Your task to perform on an android device: check storage Image 0: 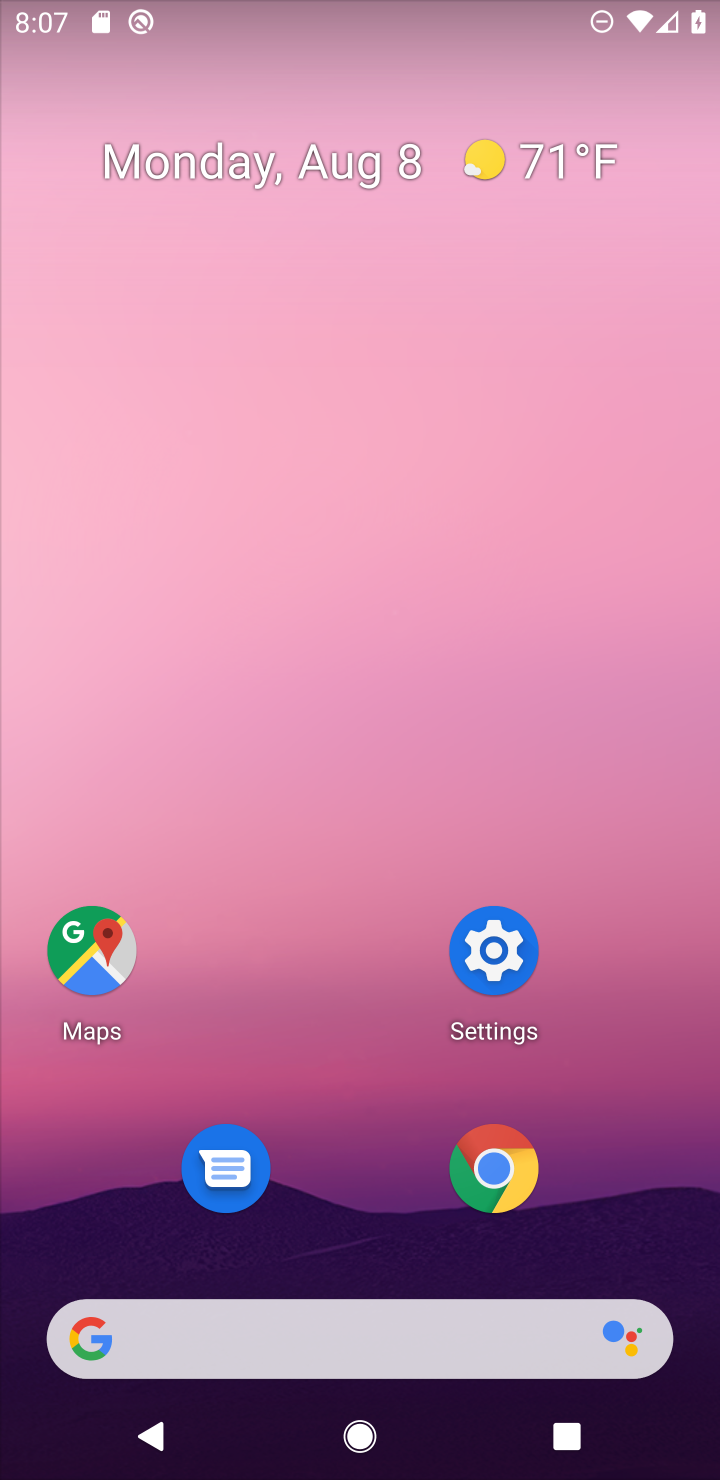
Step 0: drag from (328, 1340) to (595, 192)
Your task to perform on an android device: check storage Image 1: 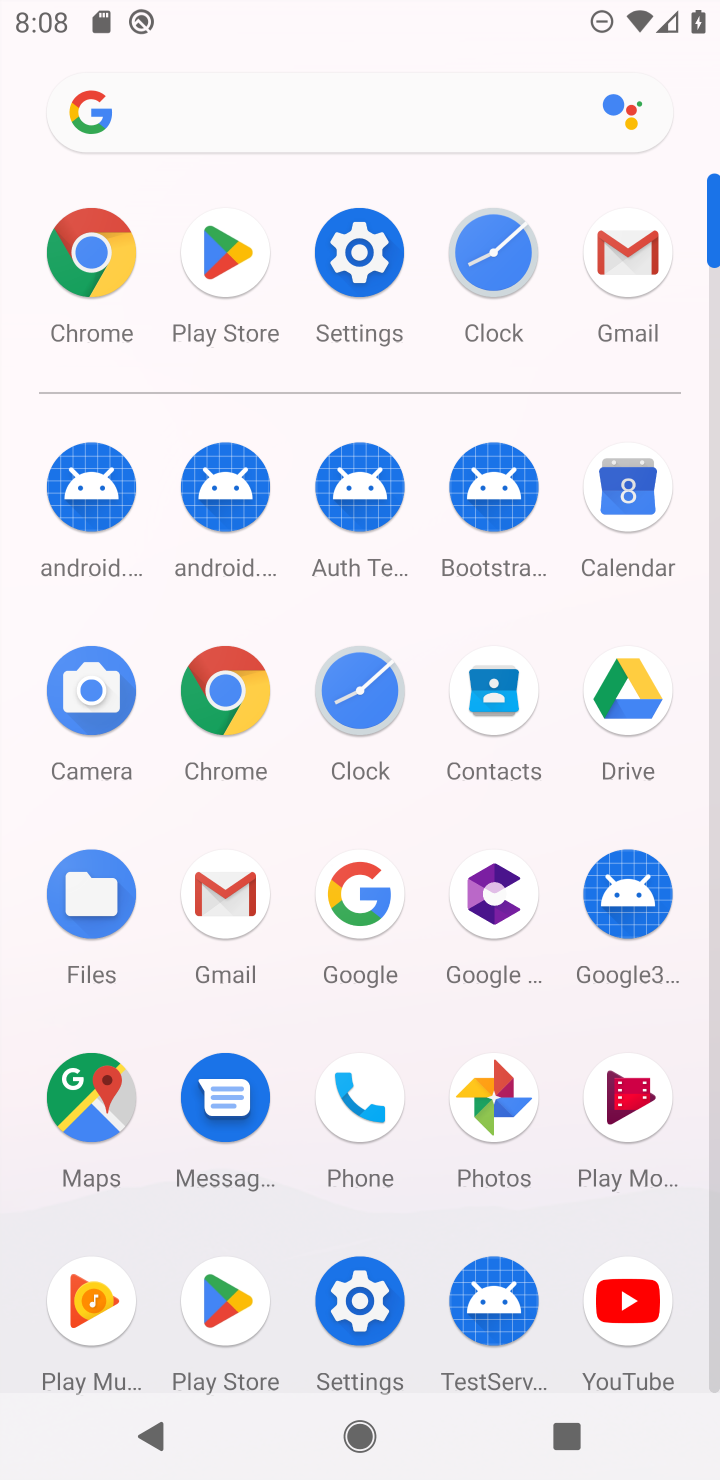
Step 1: click (358, 248)
Your task to perform on an android device: check storage Image 2: 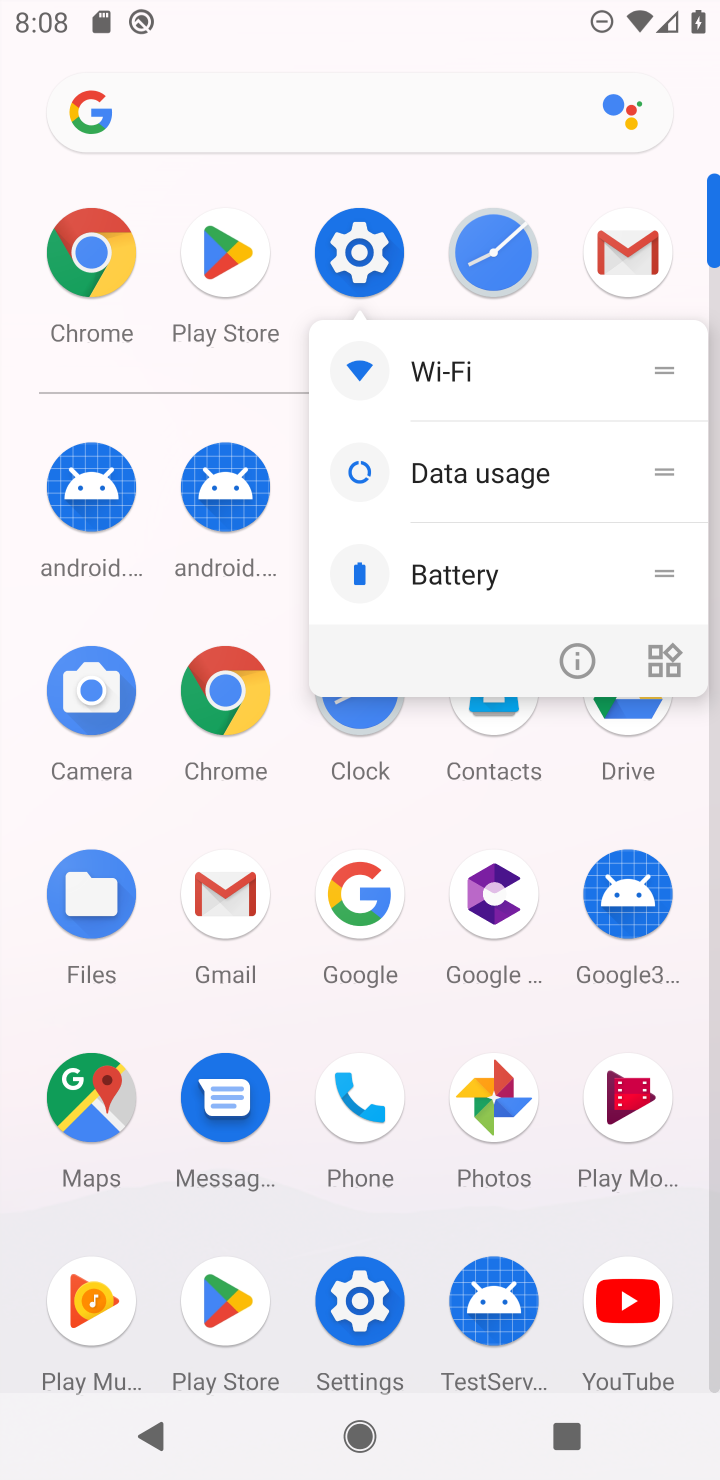
Step 2: click (352, 242)
Your task to perform on an android device: check storage Image 3: 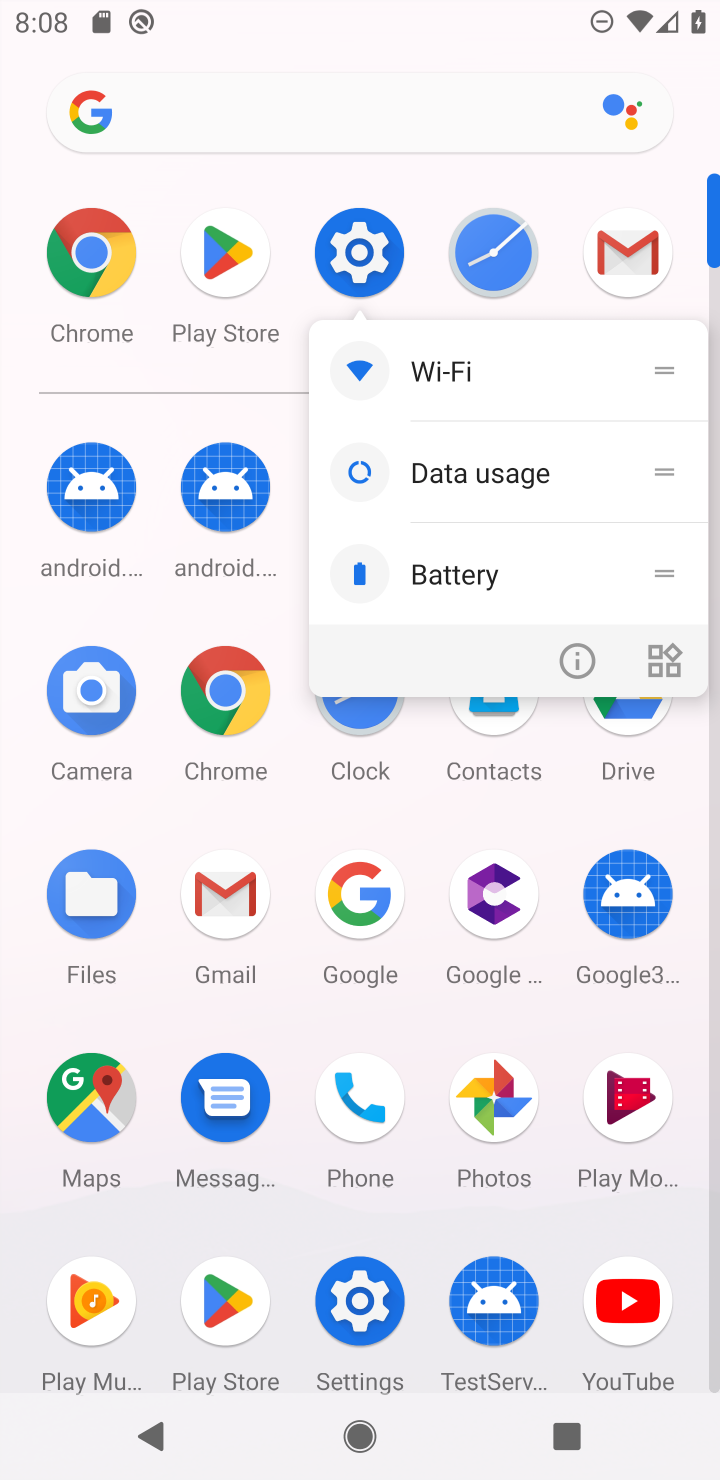
Step 3: click (352, 239)
Your task to perform on an android device: check storage Image 4: 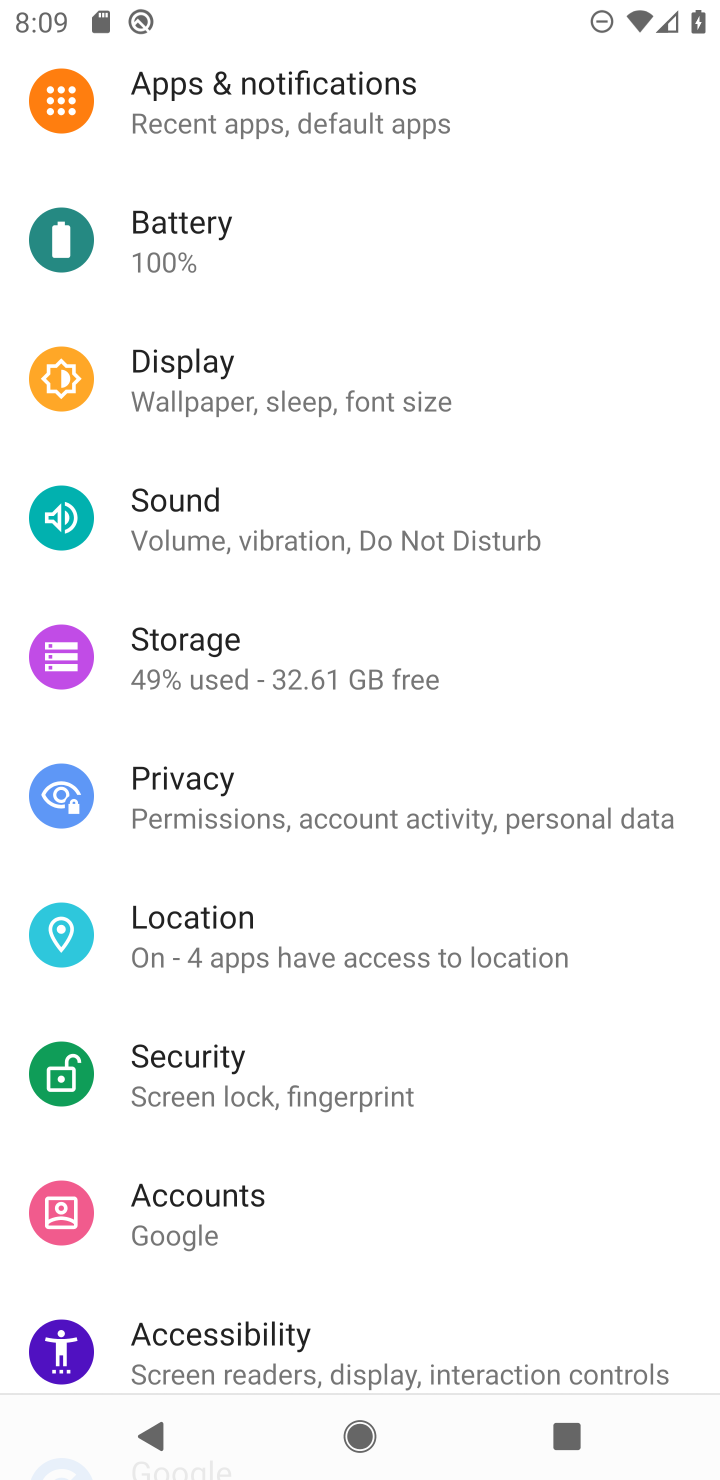
Step 4: click (225, 642)
Your task to perform on an android device: check storage Image 5: 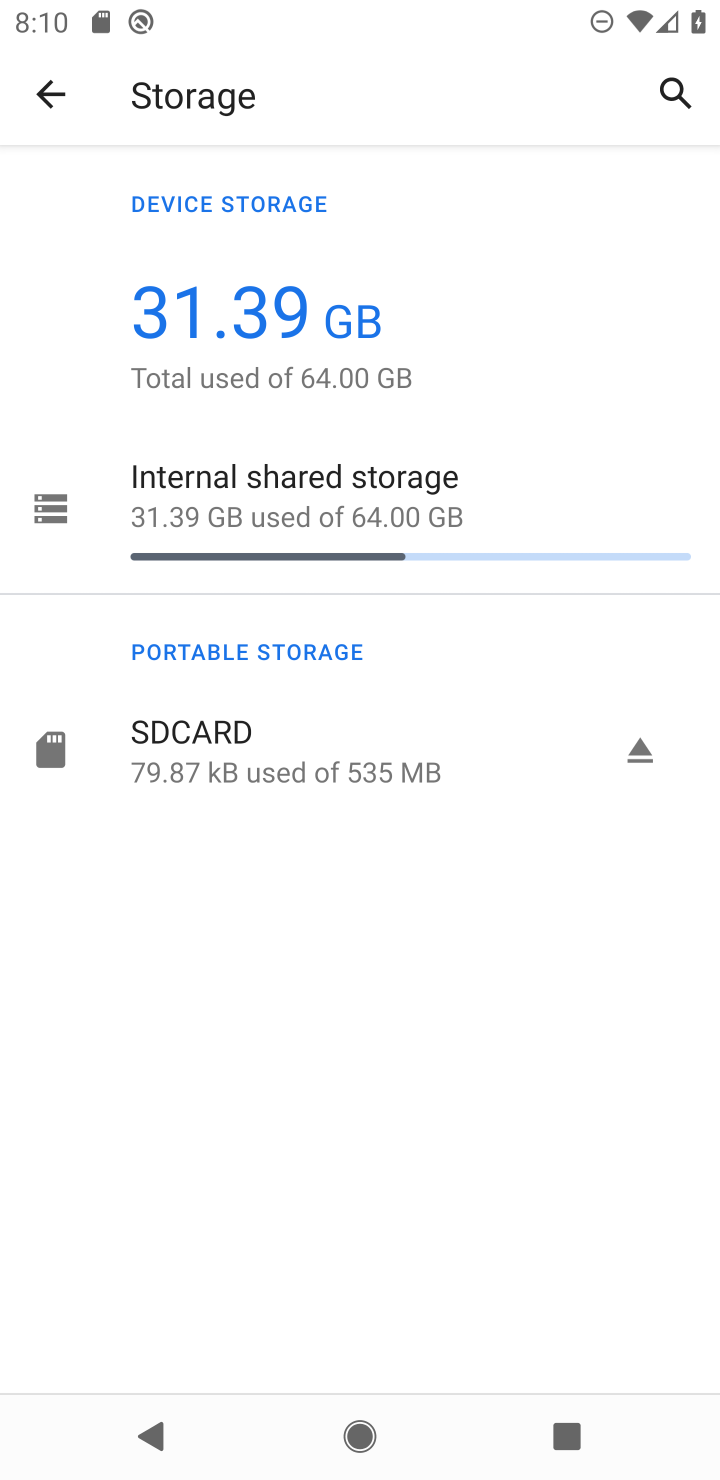
Step 5: task complete